Your task to perform on an android device: Go to network settings Image 0: 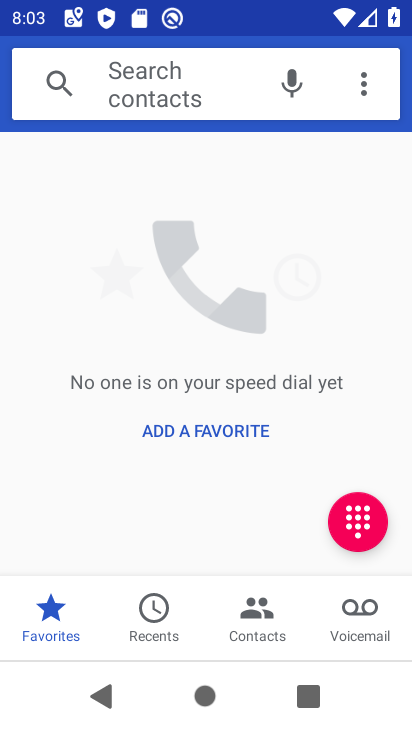
Step 0: press back button
Your task to perform on an android device: Go to network settings Image 1: 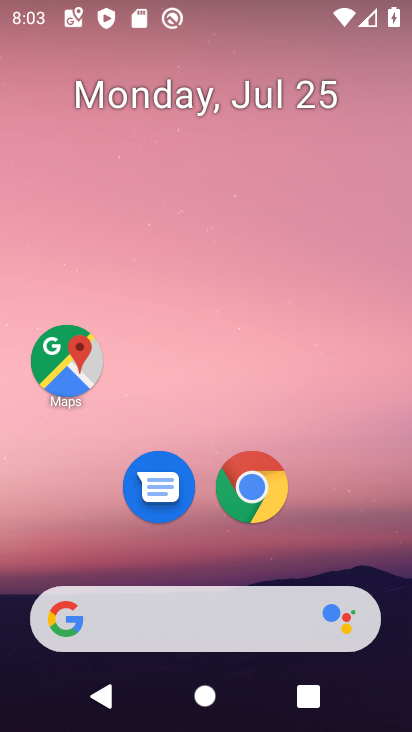
Step 1: drag from (195, 544) to (283, 8)
Your task to perform on an android device: Go to network settings Image 2: 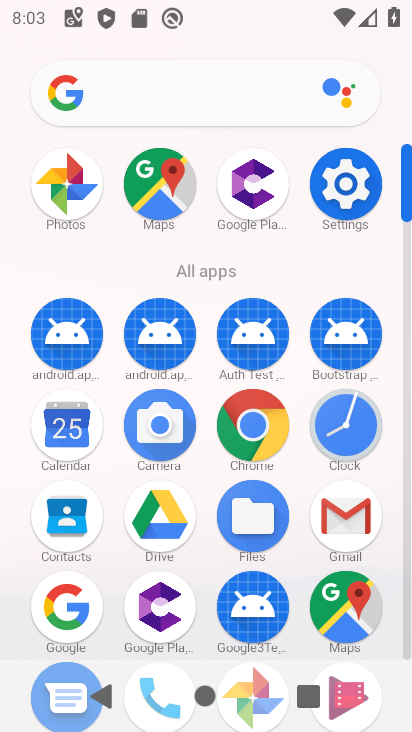
Step 2: click (348, 190)
Your task to perform on an android device: Go to network settings Image 3: 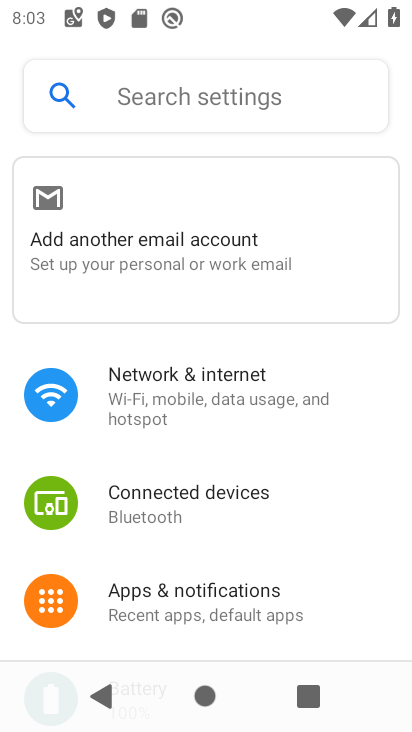
Step 3: click (168, 385)
Your task to perform on an android device: Go to network settings Image 4: 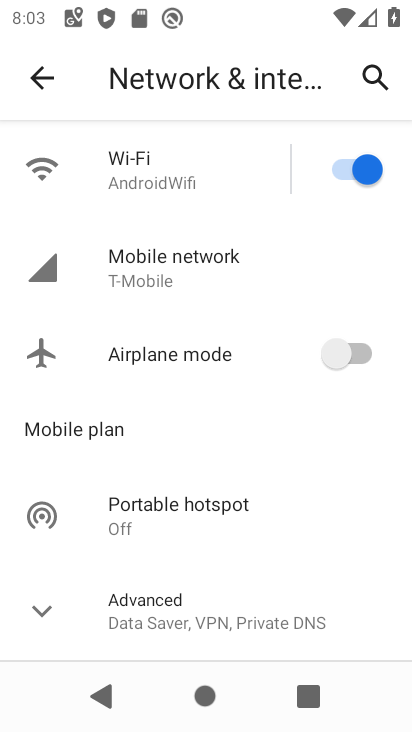
Step 4: task complete